Your task to perform on an android device: find photos in the google photos app Image 0: 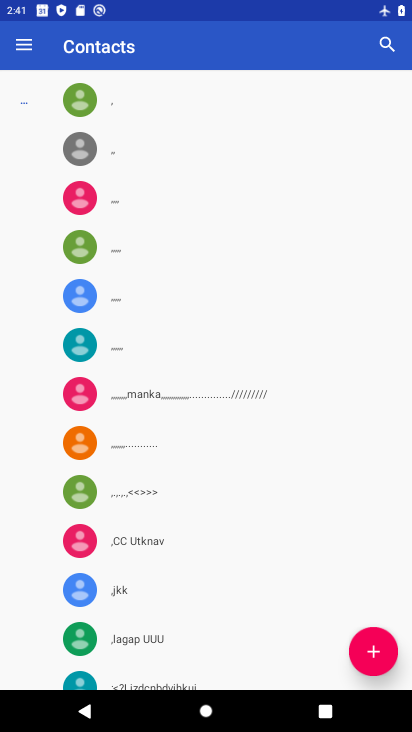
Step 0: press home button
Your task to perform on an android device: find photos in the google photos app Image 1: 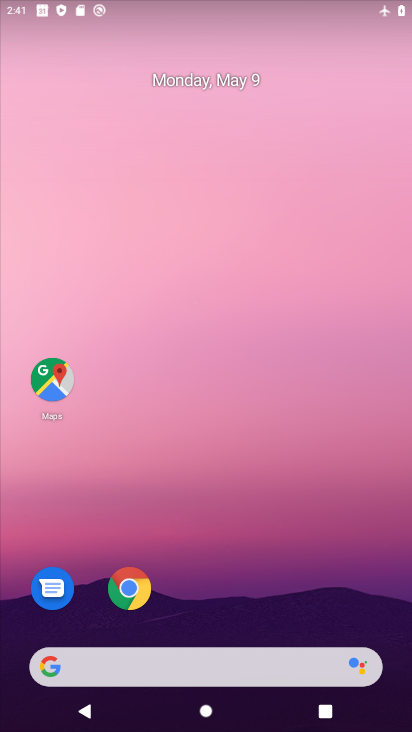
Step 1: drag from (347, 617) to (174, 41)
Your task to perform on an android device: find photos in the google photos app Image 2: 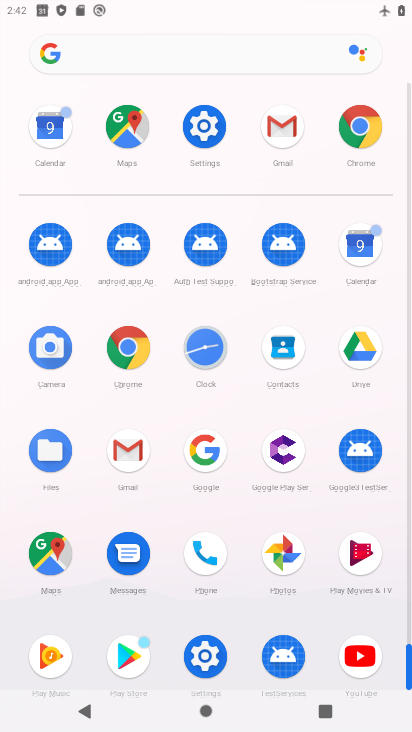
Step 2: click (277, 563)
Your task to perform on an android device: find photos in the google photos app Image 3: 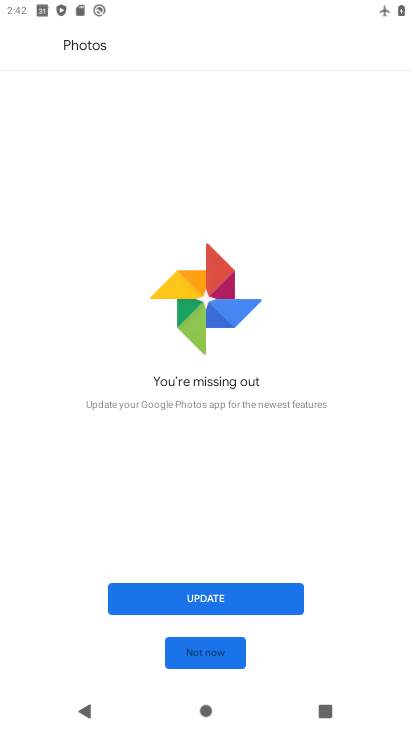
Step 3: click (216, 603)
Your task to perform on an android device: find photos in the google photos app Image 4: 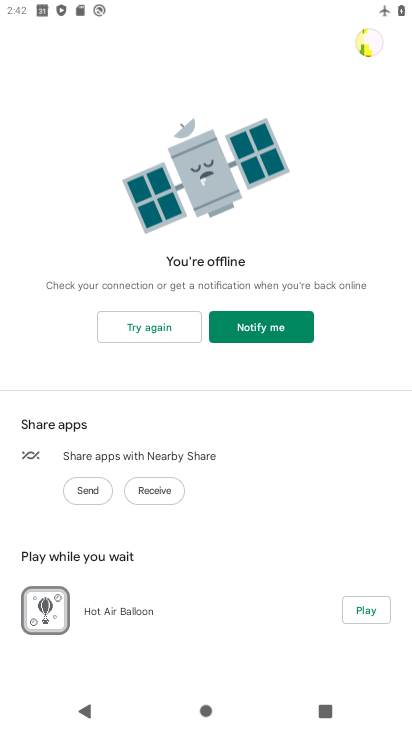
Step 4: click (158, 321)
Your task to perform on an android device: find photos in the google photos app Image 5: 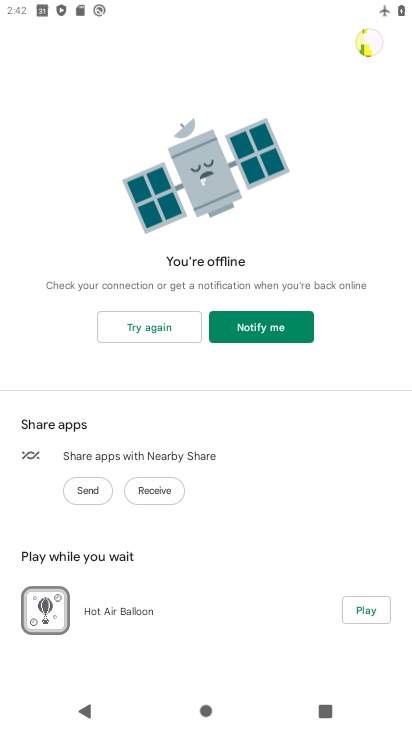
Step 5: click (158, 321)
Your task to perform on an android device: find photos in the google photos app Image 6: 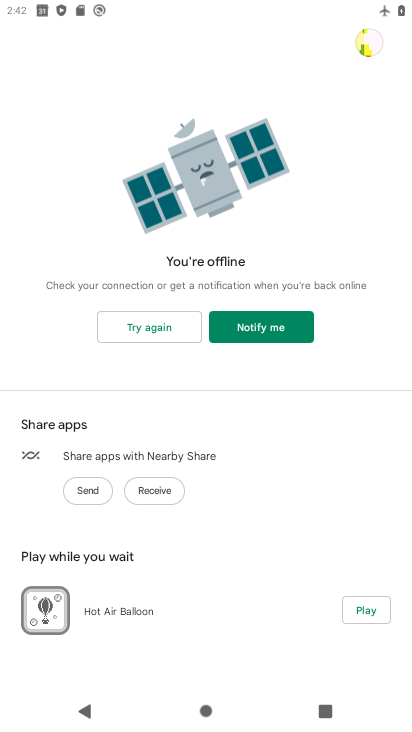
Step 6: task complete